Your task to perform on an android device: Open the map Image 0: 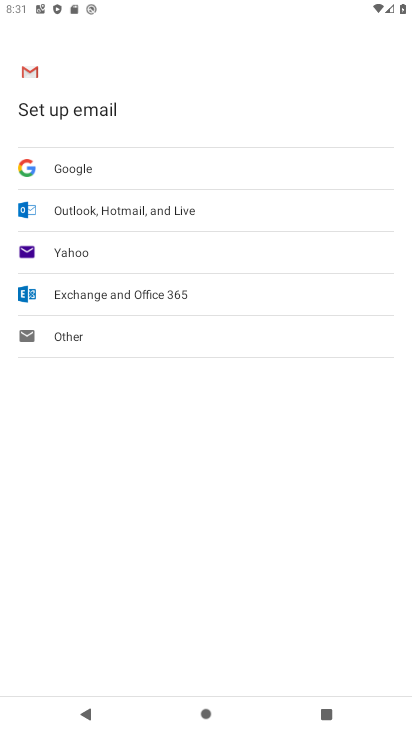
Step 0: press home button
Your task to perform on an android device: Open the map Image 1: 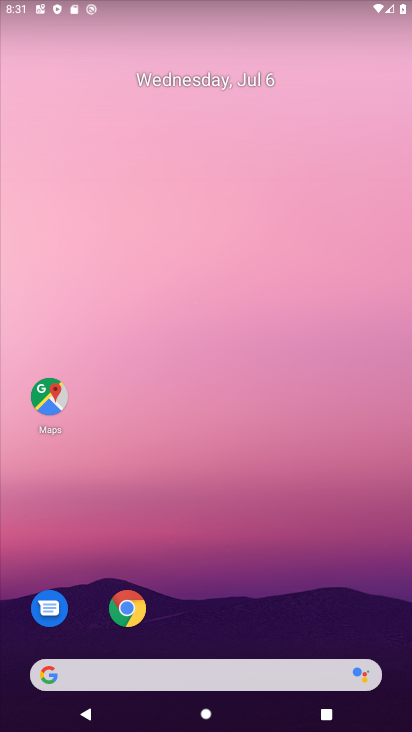
Step 1: click (44, 404)
Your task to perform on an android device: Open the map Image 2: 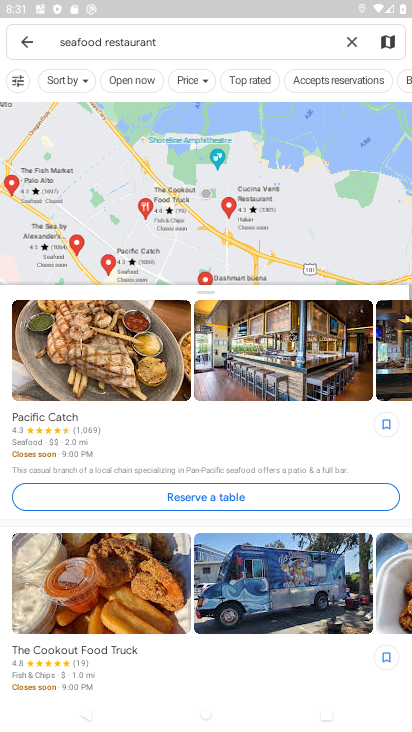
Step 2: click (26, 39)
Your task to perform on an android device: Open the map Image 3: 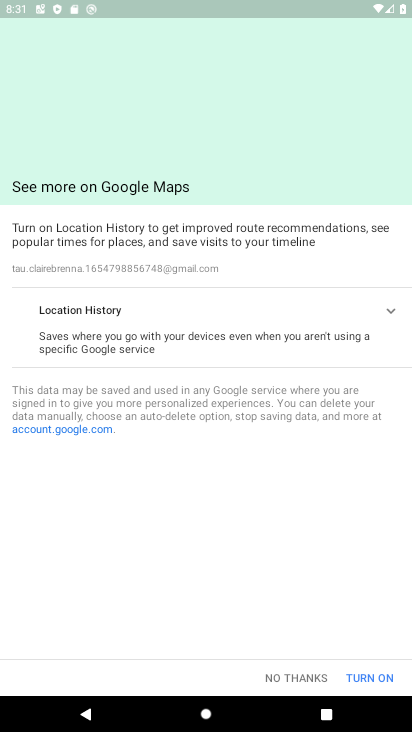
Step 3: task complete